Your task to perform on an android device: choose inbox layout in the gmail app Image 0: 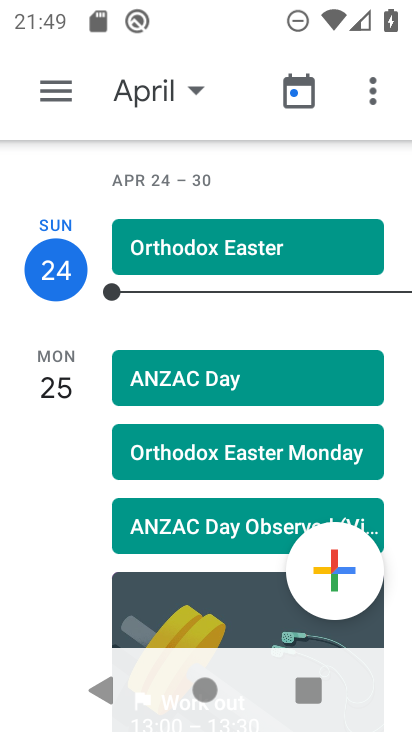
Step 0: press home button
Your task to perform on an android device: choose inbox layout in the gmail app Image 1: 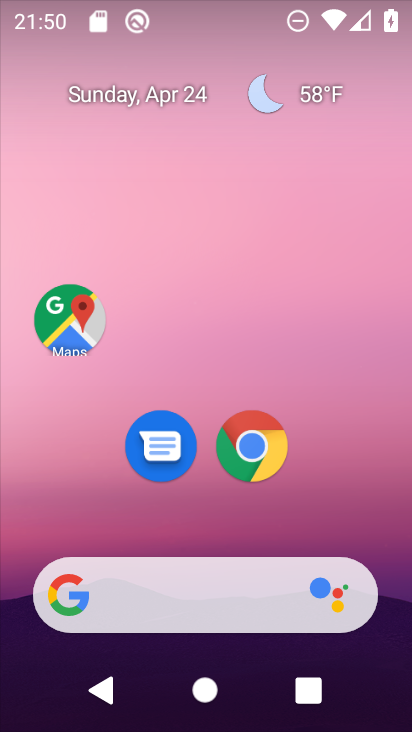
Step 1: drag from (217, 591) to (410, 33)
Your task to perform on an android device: choose inbox layout in the gmail app Image 2: 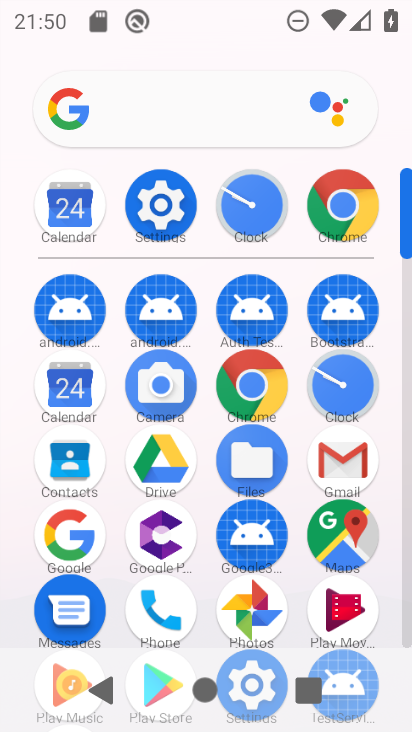
Step 2: click (340, 461)
Your task to perform on an android device: choose inbox layout in the gmail app Image 3: 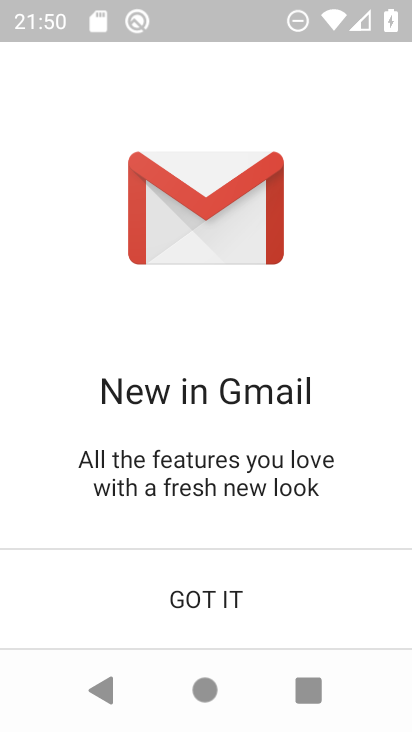
Step 3: click (213, 597)
Your task to perform on an android device: choose inbox layout in the gmail app Image 4: 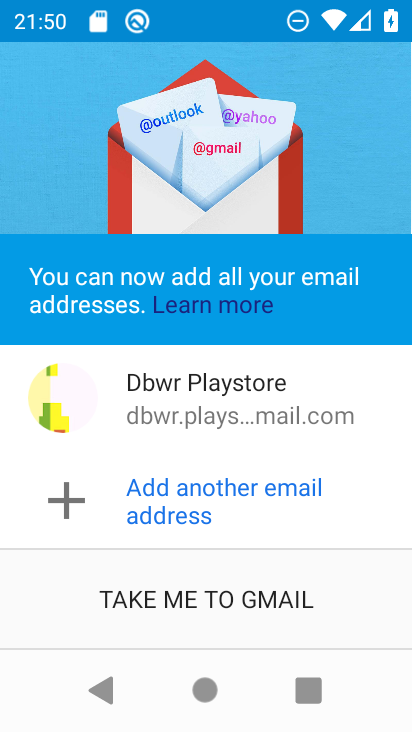
Step 4: click (207, 599)
Your task to perform on an android device: choose inbox layout in the gmail app Image 5: 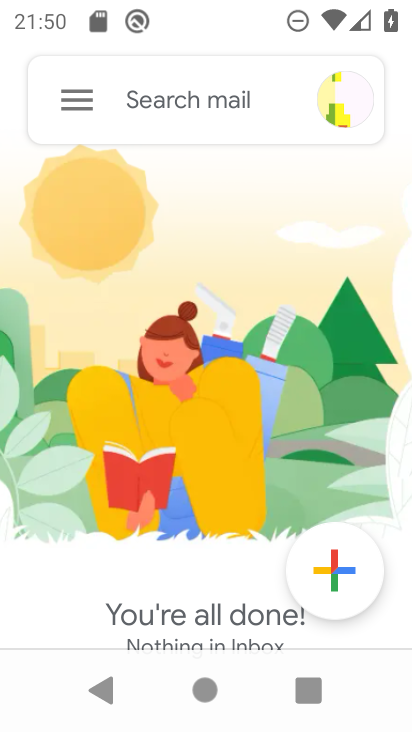
Step 5: click (73, 99)
Your task to perform on an android device: choose inbox layout in the gmail app Image 6: 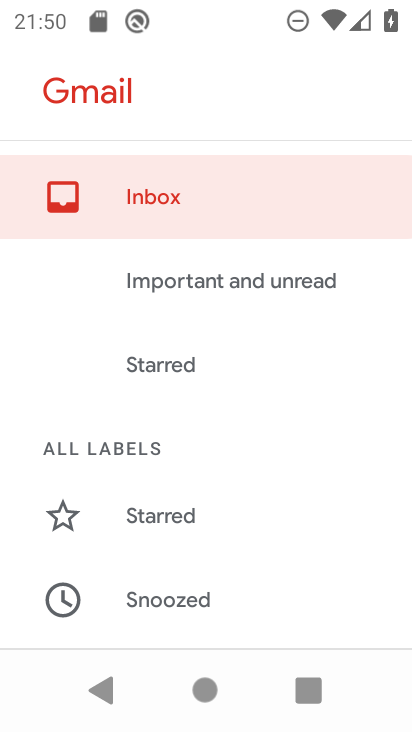
Step 6: drag from (145, 591) to (352, 166)
Your task to perform on an android device: choose inbox layout in the gmail app Image 7: 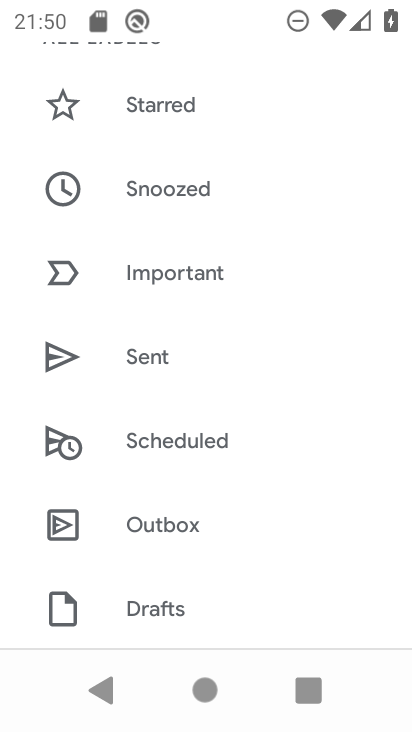
Step 7: drag from (228, 531) to (406, 142)
Your task to perform on an android device: choose inbox layout in the gmail app Image 8: 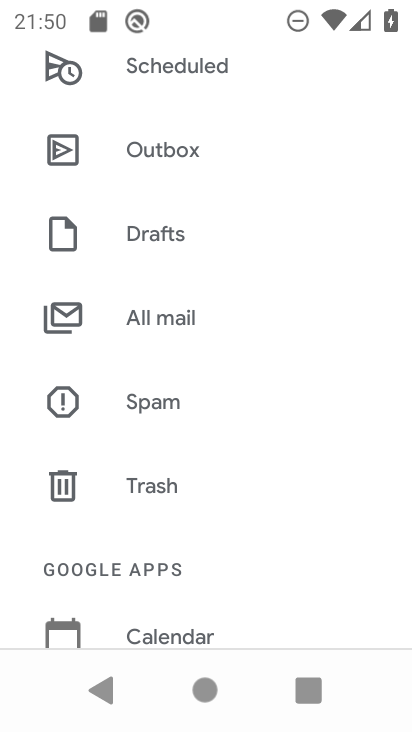
Step 8: drag from (149, 620) to (379, 173)
Your task to perform on an android device: choose inbox layout in the gmail app Image 9: 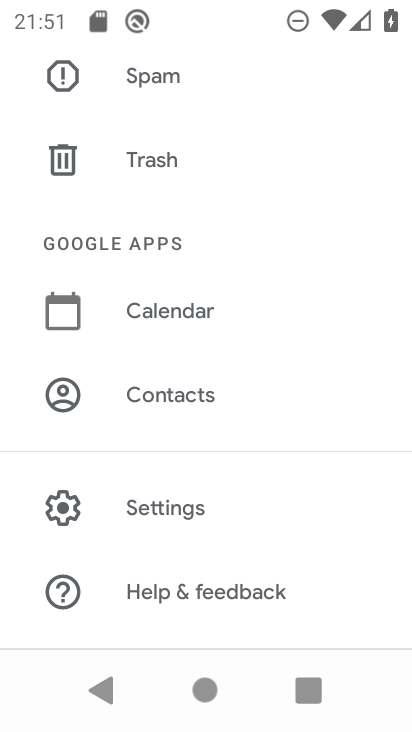
Step 9: click (189, 513)
Your task to perform on an android device: choose inbox layout in the gmail app Image 10: 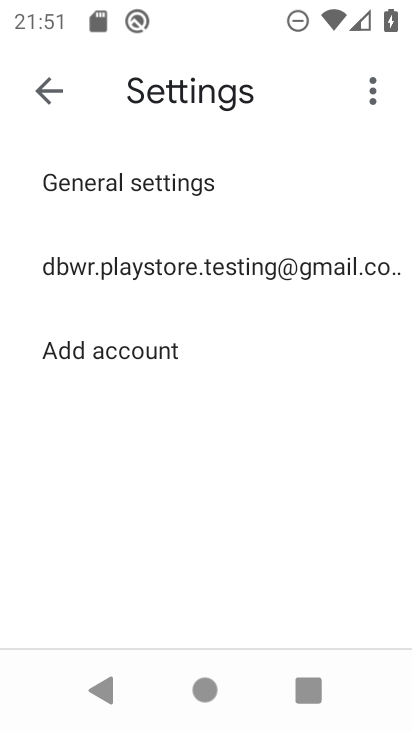
Step 10: click (232, 265)
Your task to perform on an android device: choose inbox layout in the gmail app Image 11: 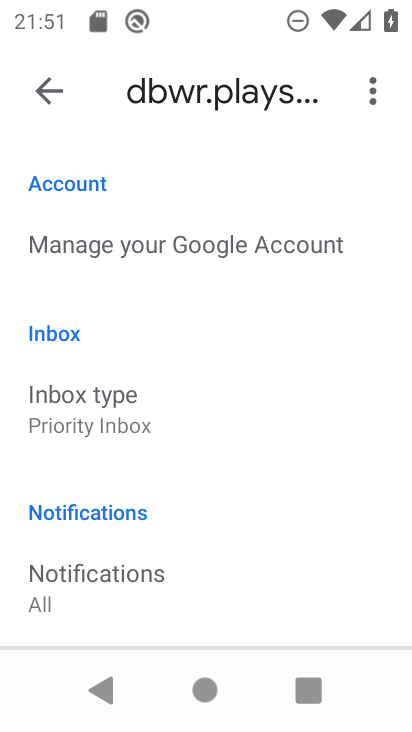
Step 11: click (106, 411)
Your task to perform on an android device: choose inbox layout in the gmail app Image 12: 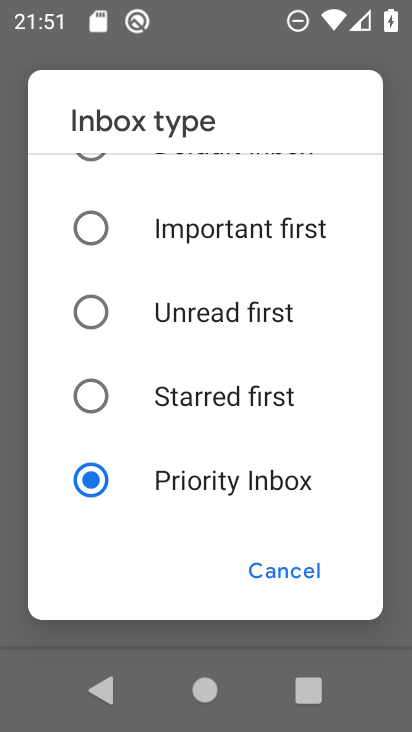
Step 12: drag from (209, 276) to (160, 602)
Your task to perform on an android device: choose inbox layout in the gmail app Image 13: 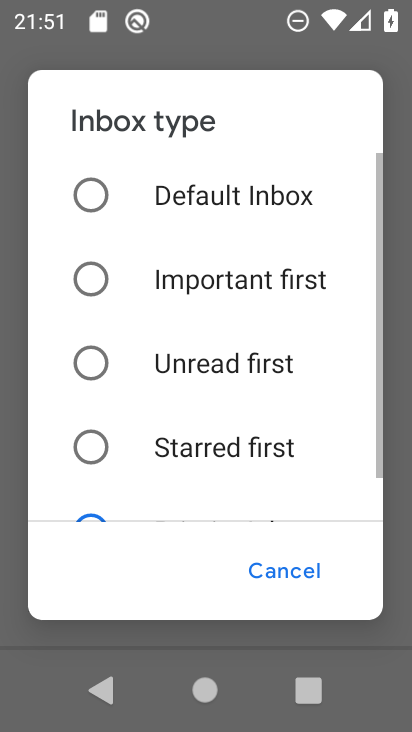
Step 13: click (96, 193)
Your task to perform on an android device: choose inbox layout in the gmail app Image 14: 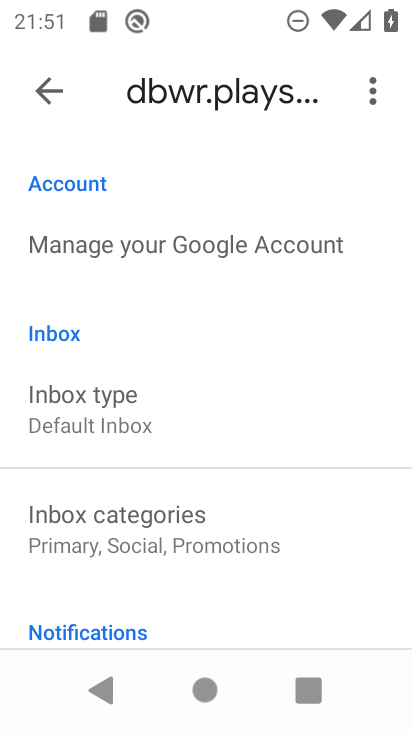
Step 14: task complete